Your task to perform on an android device: Open Android settings Image 0: 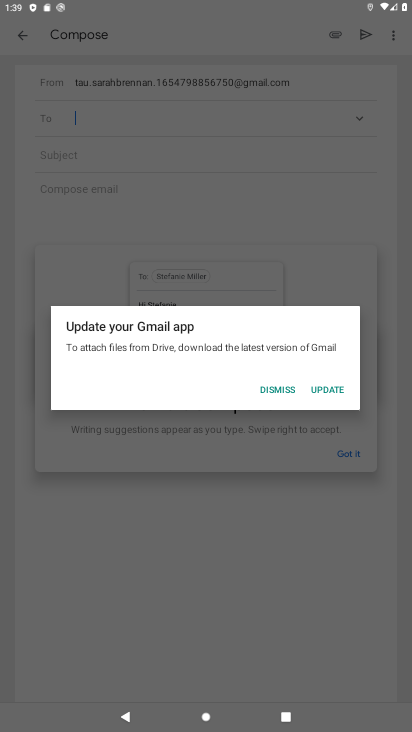
Step 0: press home button
Your task to perform on an android device: Open Android settings Image 1: 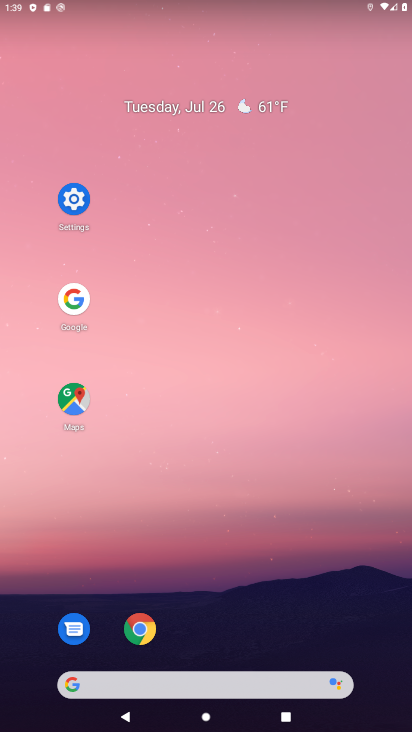
Step 1: click (79, 198)
Your task to perform on an android device: Open Android settings Image 2: 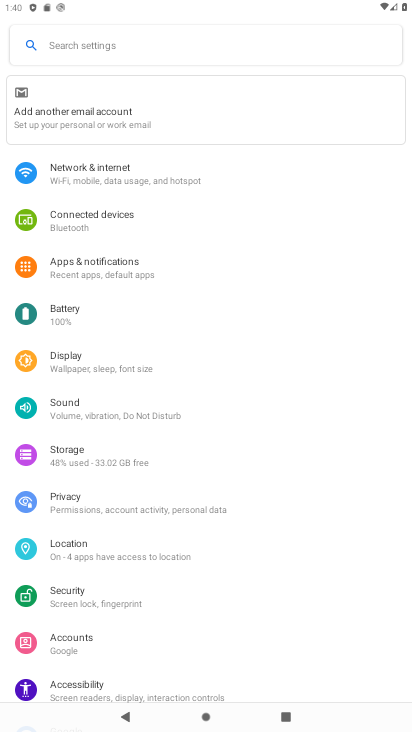
Step 2: task complete